Your task to perform on an android device: Open Reddit.com Image 0: 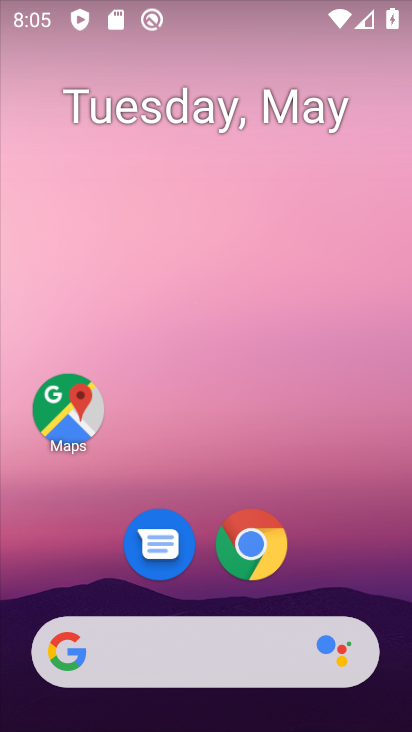
Step 0: click (251, 544)
Your task to perform on an android device: Open Reddit.com Image 1: 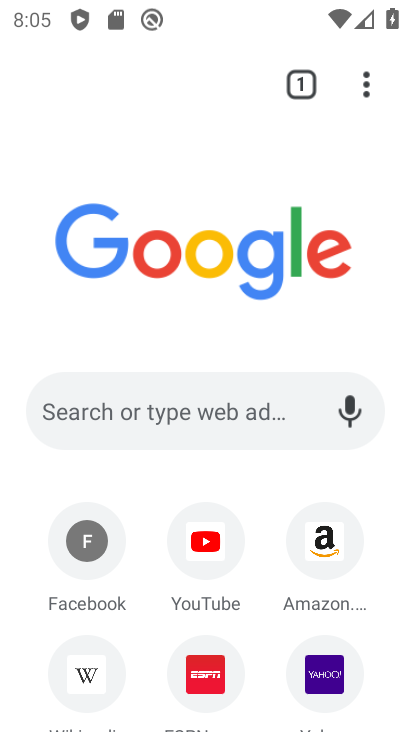
Step 1: click (213, 397)
Your task to perform on an android device: Open Reddit.com Image 2: 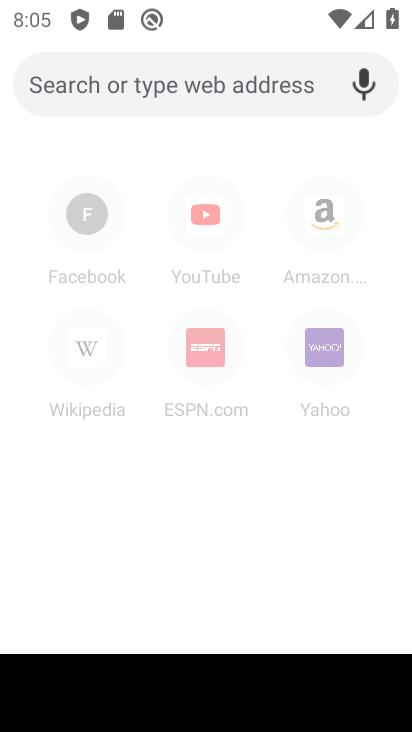
Step 2: type "reddit.com"
Your task to perform on an android device: Open Reddit.com Image 3: 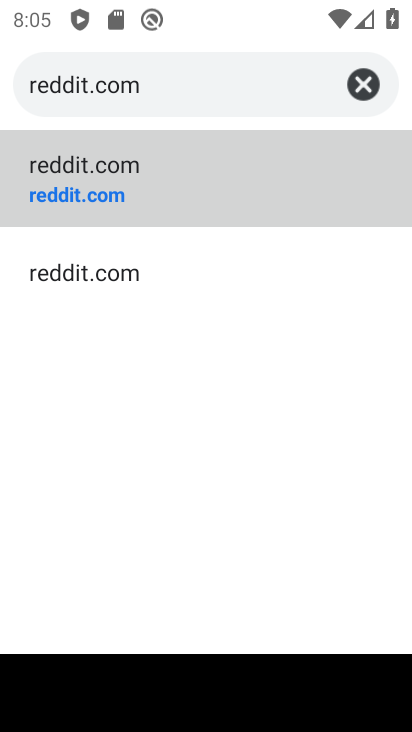
Step 3: type ""
Your task to perform on an android device: Open Reddit.com Image 4: 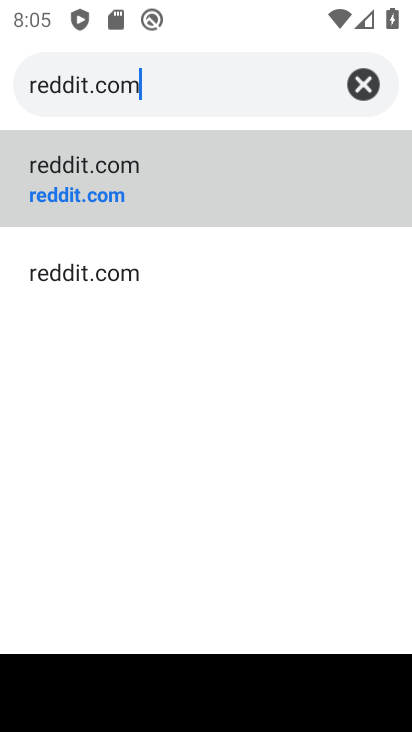
Step 4: click (89, 164)
Your task to perform on an android device: Open Reddit.com Image 5: 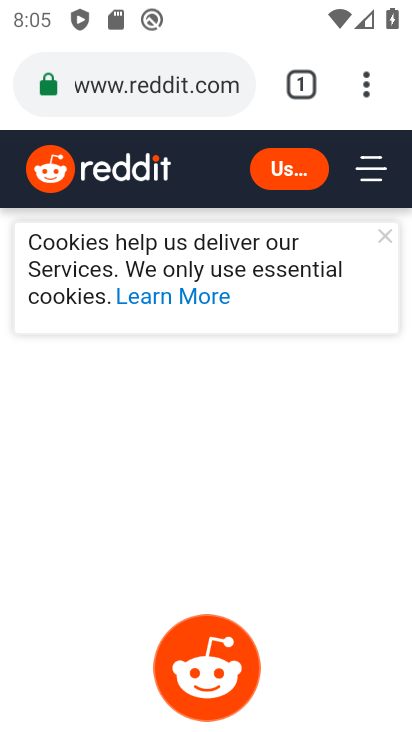
Step 5: task complete